Your task to perform on an android device: Set the phone to "Do not disturb". Image 0: 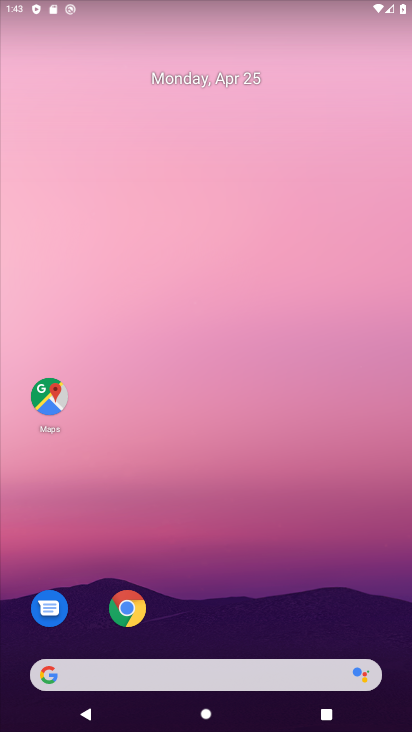
Step 0: drag from (352, 624) to (260, 40)
Your task to perform on an android device: Set the phone to "Do not disturb". Image 1: 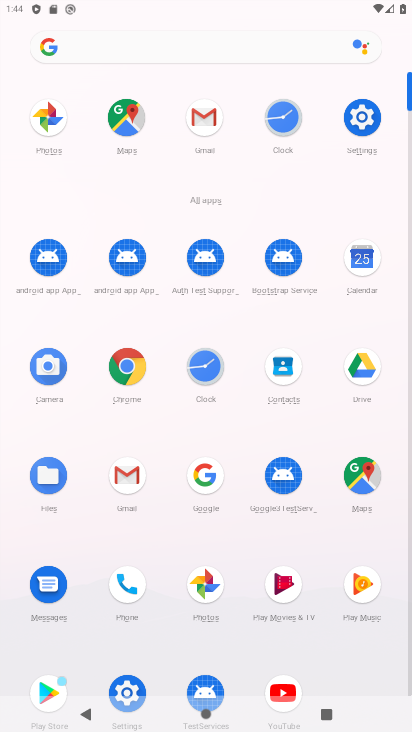
Step 1: drag from (201, 9) to (193, 568)
Your task to perform on an android device: Set the phone to "Do not disturb". Image 2: 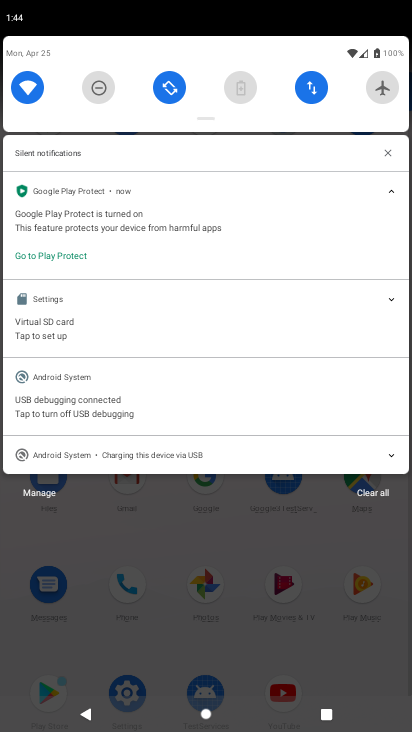
Step 2: click (94, 89)
Your task to perform on an android device: Set the phone to "Do not disturb". Image 3: 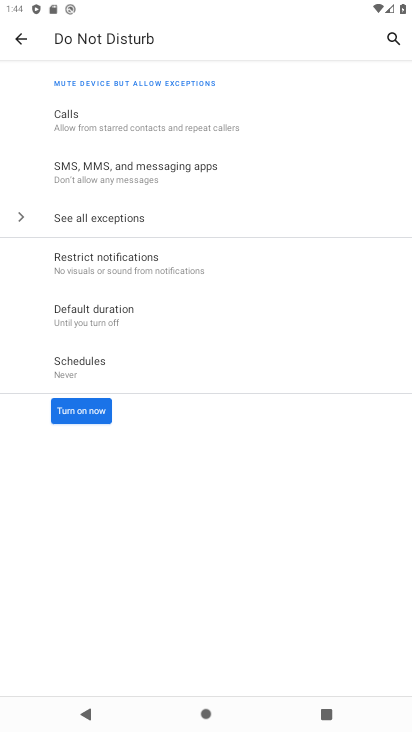
Step 3: click (88, 408)
Your task to perform on an android device: Set the phone to "Do not disturb". Image 4: 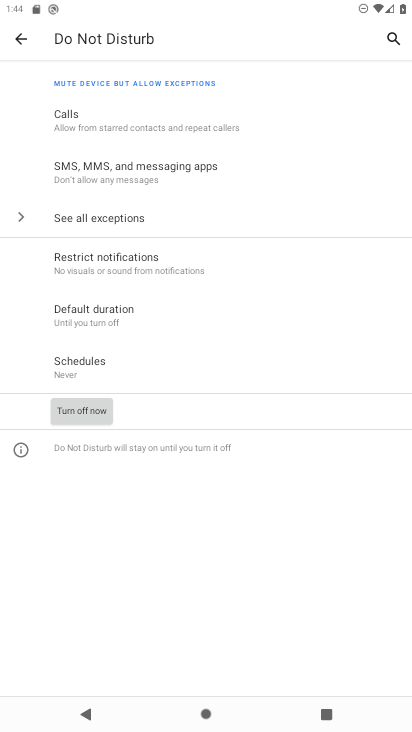
Step 4: task complete